Your task to perform on an android device: refresh tabs in the chrome app Image 0: 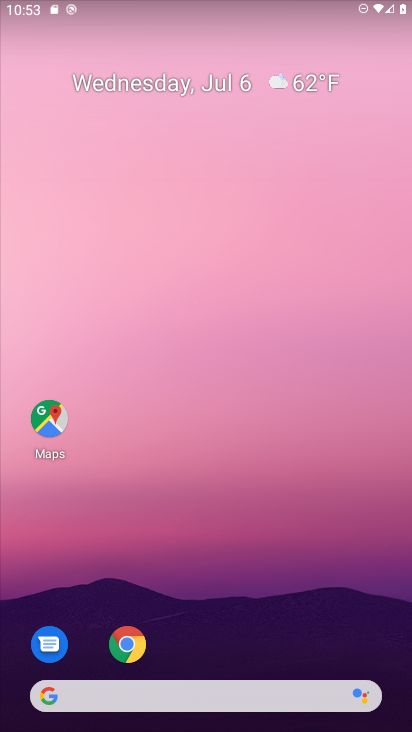
Step 0: press home button
Your task to perform on an android device: refresh tabs in the chrome app Image 1: 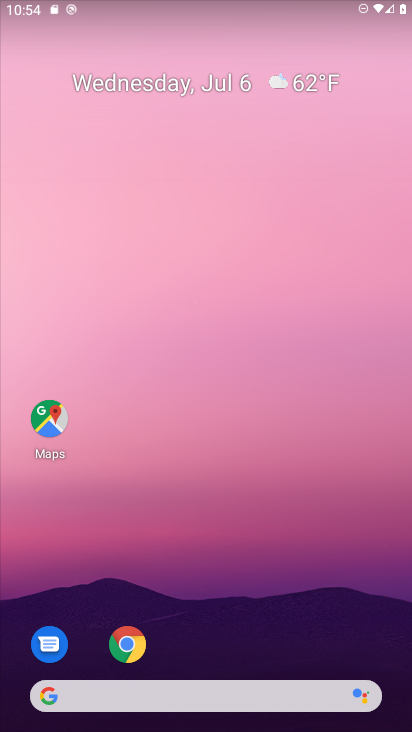
Step 1: click (120, 648)
Your task to perform on an android device: refresh tabs in the chrome app Image 2: 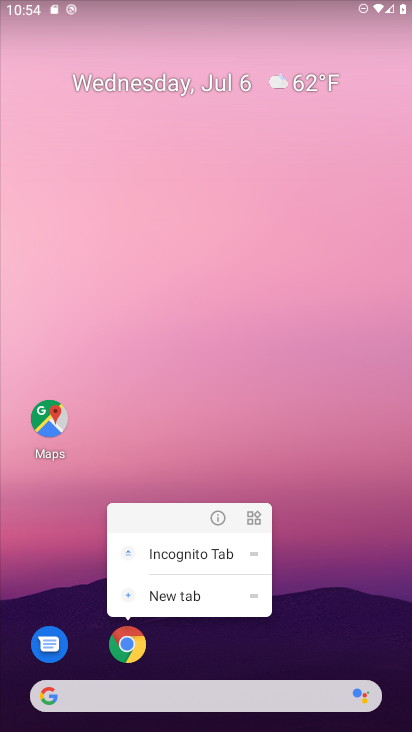
Step 2: click (120, 648)
Your task to perform on an android device: refresh tabs in the chrome app Image 3: 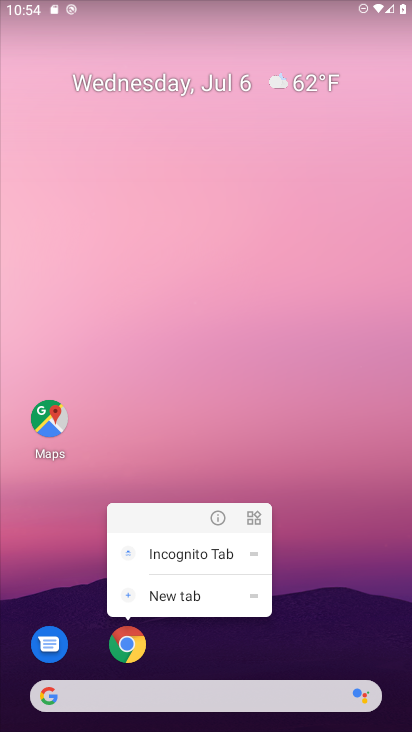
Step 3: click (130, 640)
Your task to perform on an android device: refresh tabs in the chrome app Image 4: 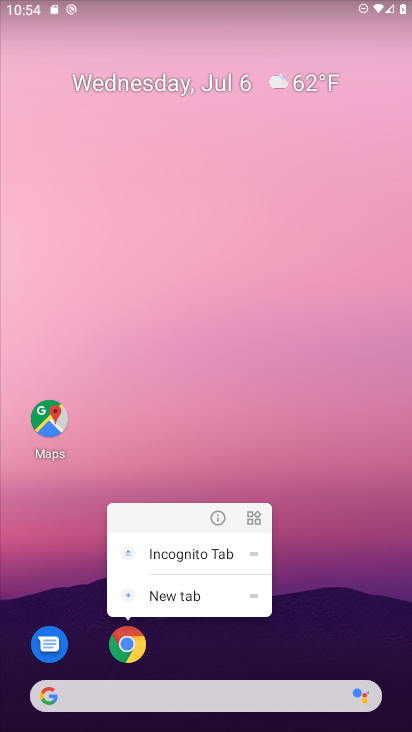
Step 4: click (143, 652)
Your task to perform on an android device: refresh tabs in the chrome app Image 5: 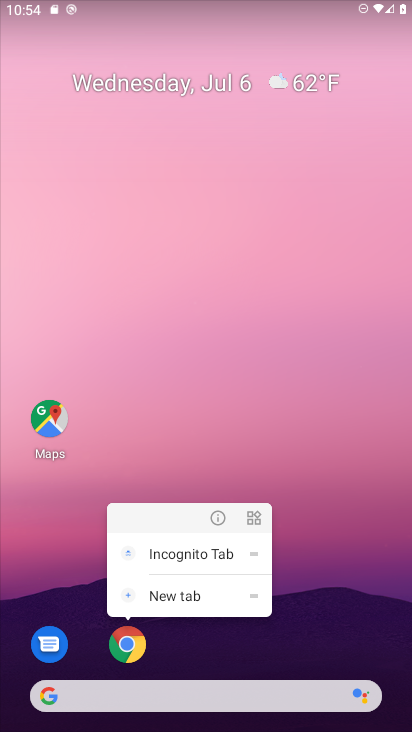
Step 5: click (125, 649)
Your task to perform on an android device: refresh tabs in the chrome app Image 6: 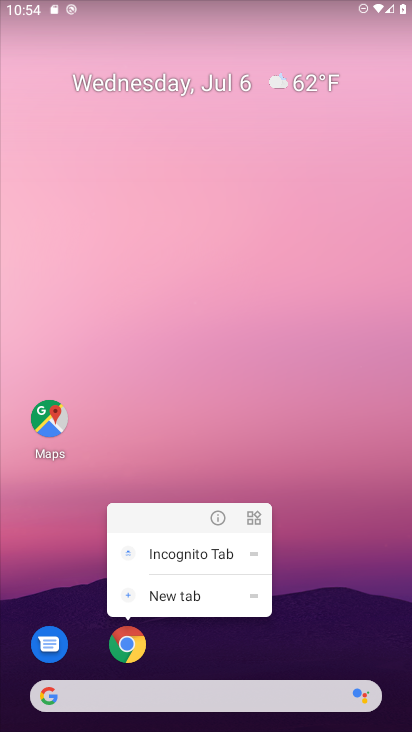
Step 6: click (120, 647)
Your task to perform on an android device: refresh tabs in the chrome app Image 7: 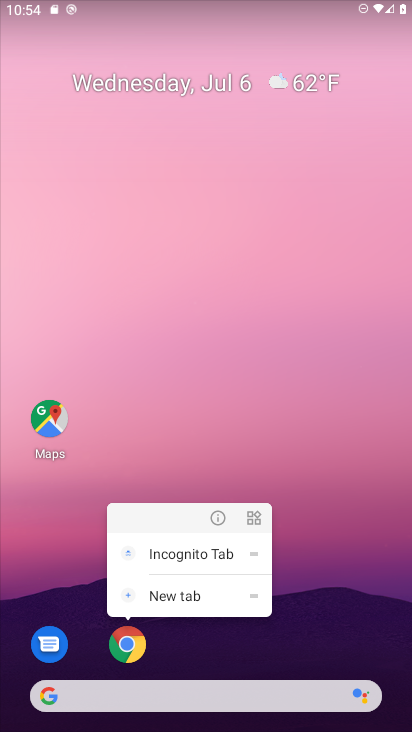
Step 7: click (120, 646)
Your task to perform on an android device: refresh tabs in the chrome app Image 8: 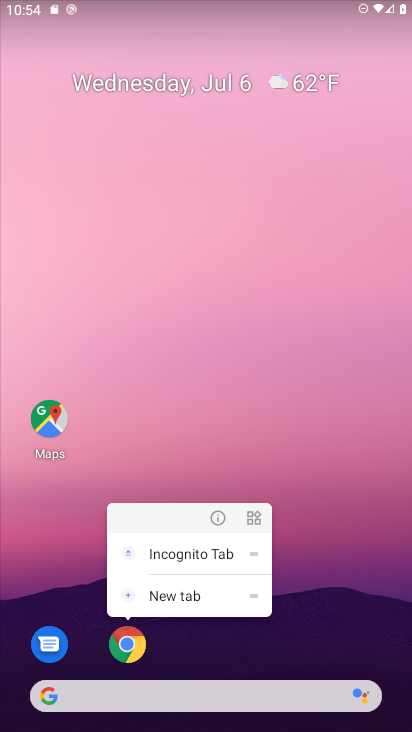
Step 8: click (239, 657)
Your task to perform on an android device: refresh tabs in the chrome app Image 9: 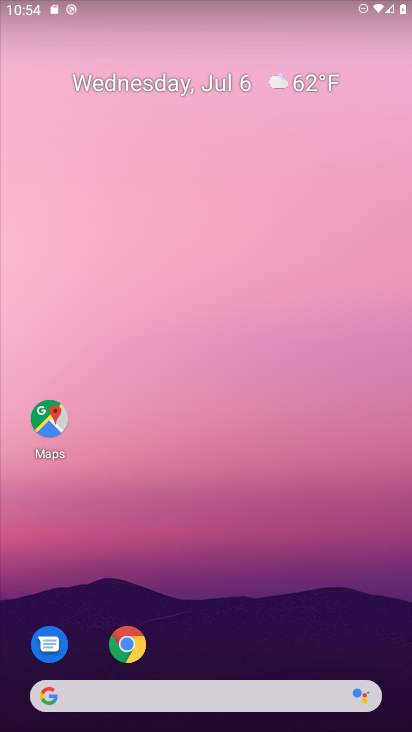
Step 9: click (127, 644)
Your task to perform on an android device: refresh tabs in the chrome app Image 10: 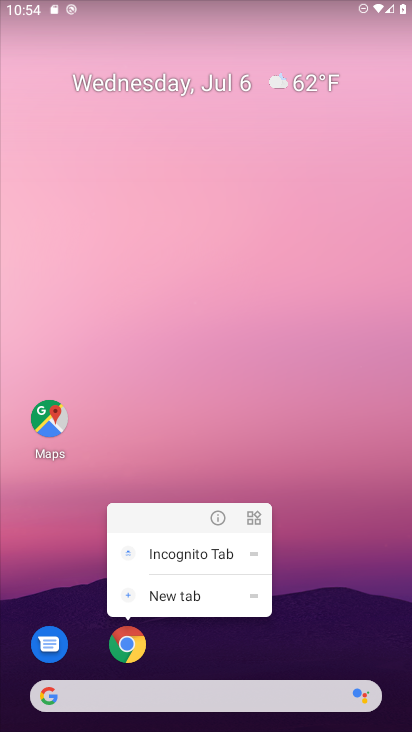
Step 10: click (188, 655)
Your task to perform on an android device: refresh tabs in the chrome app Image 11: 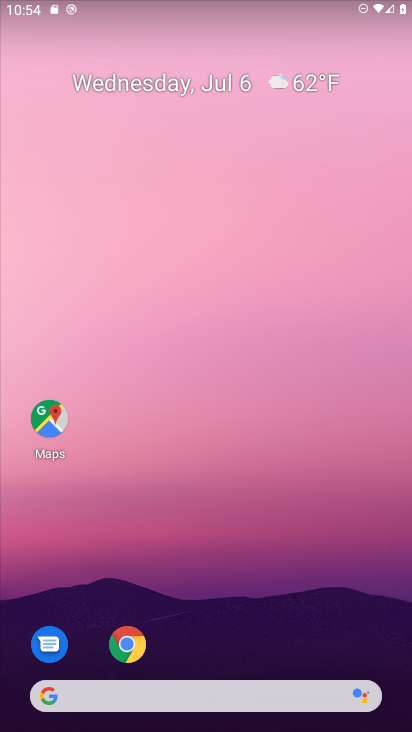
Step 11: click (127, 640)
Your task to perform on an android device: refresh tabs in the chrome app Image 12: 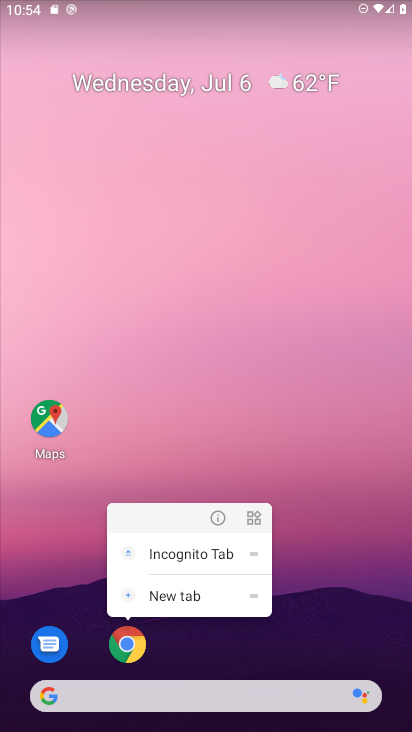
Step 12: click (221, 654)
Your task to perform on an android device: refresh tabs in the chrome app Image 13: 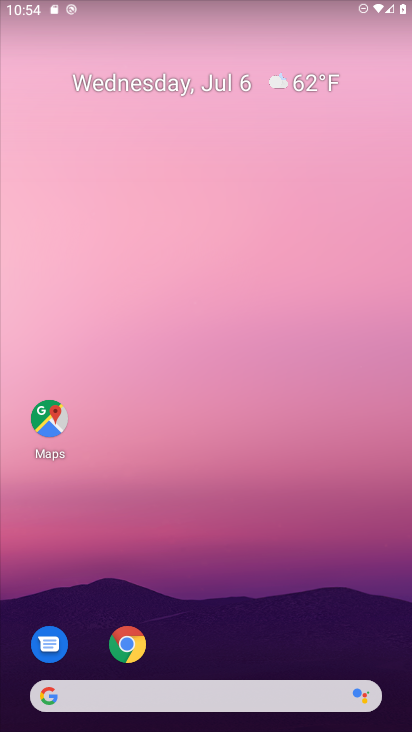
Step 13: drag from (279, 654) to (202, 24)
Your task to perform on an android device: refresh tabs in the chrome app Image 14: 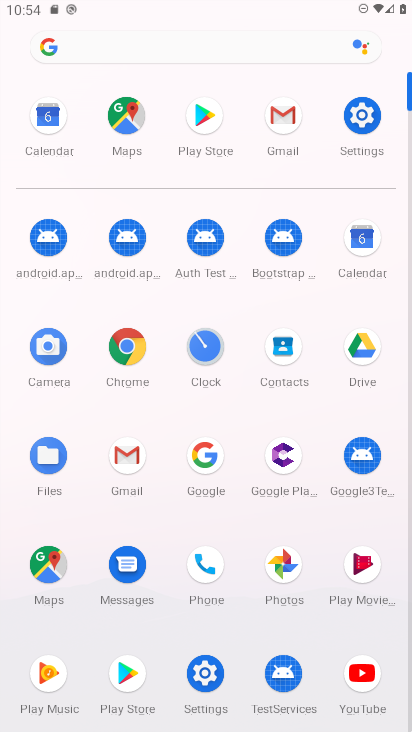
Step 14: click (131, 348)
Your task to perform on an android device: refresh tabs in the chrome app Image 15: 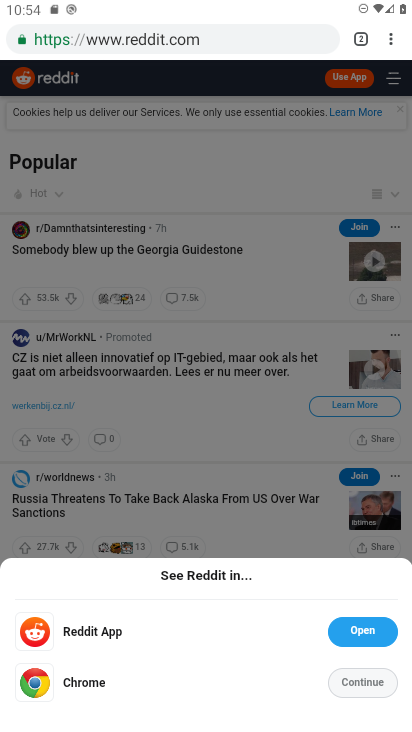
Step 15: click (364, 36)
Your task to perform on an android device: refresh tabs in the chrome app Image 16: 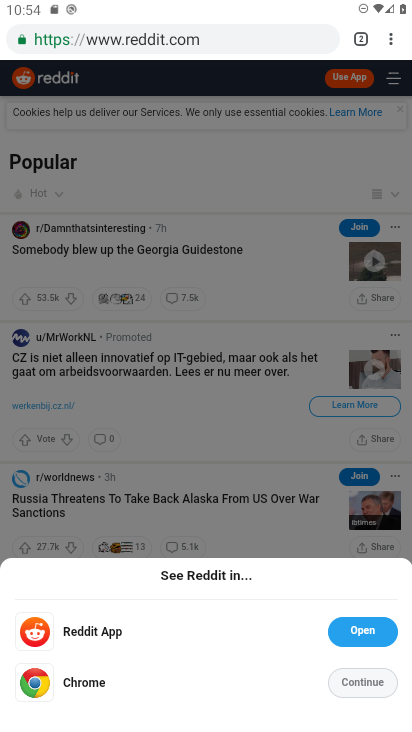
Step 16: click (386, 42)
Your task to perform on an android device: refresh tabs in the chrome app Image 17: 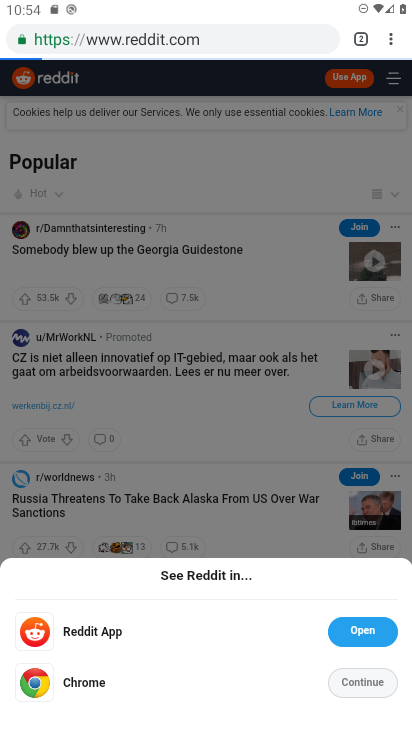
Step 17: click (391, 34)
Your task to perform on an android device: refresh tabs in the chrome app Image 18: 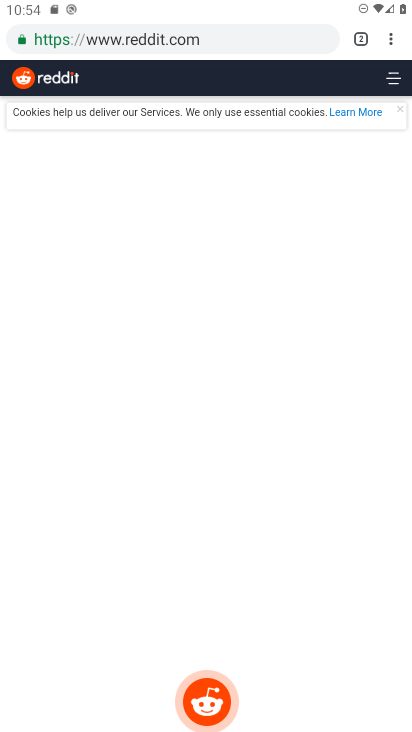
Step 18: click (388, 38)
Your task to perform on an android device: refresh tabs in the chrome app Image 19: 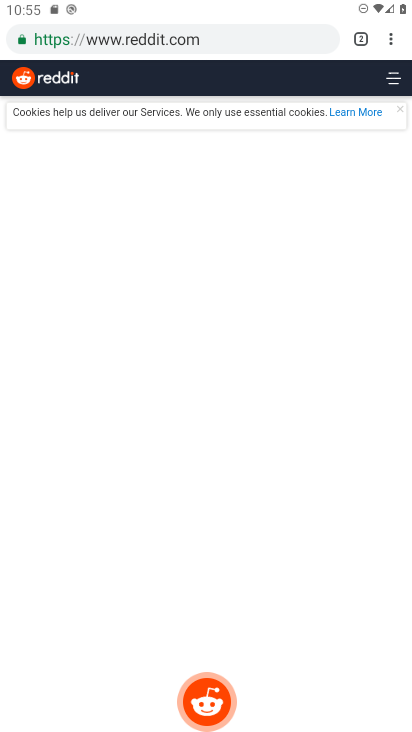
Step 19: task complete